Your task to perform on an android device: open app "Adobe Acrobat Reader" Image 0: 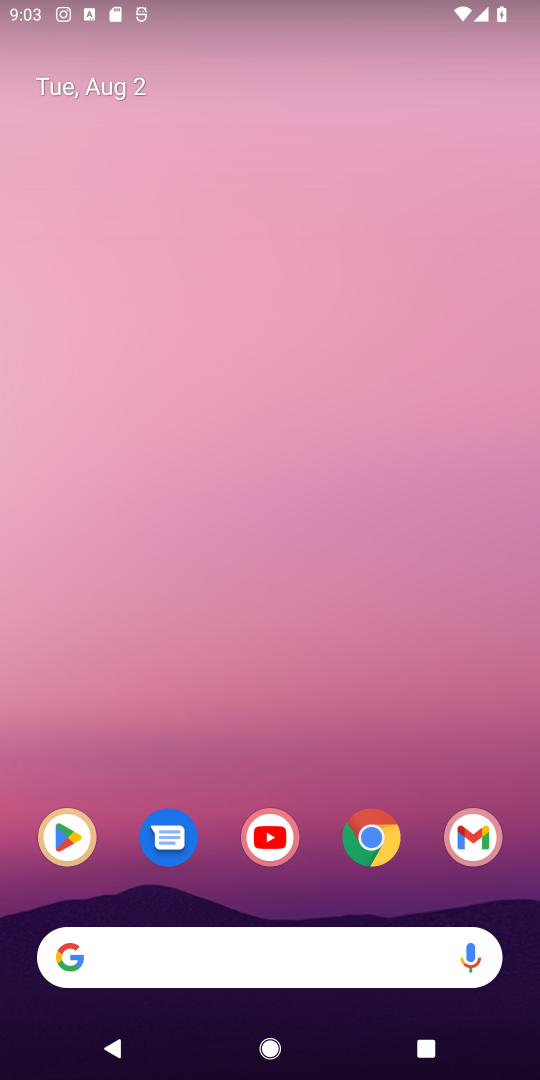
Step 0: click (58, 848)
Your task to perform on an android device: open app "Adobe Acrobat Reader" Image 1: 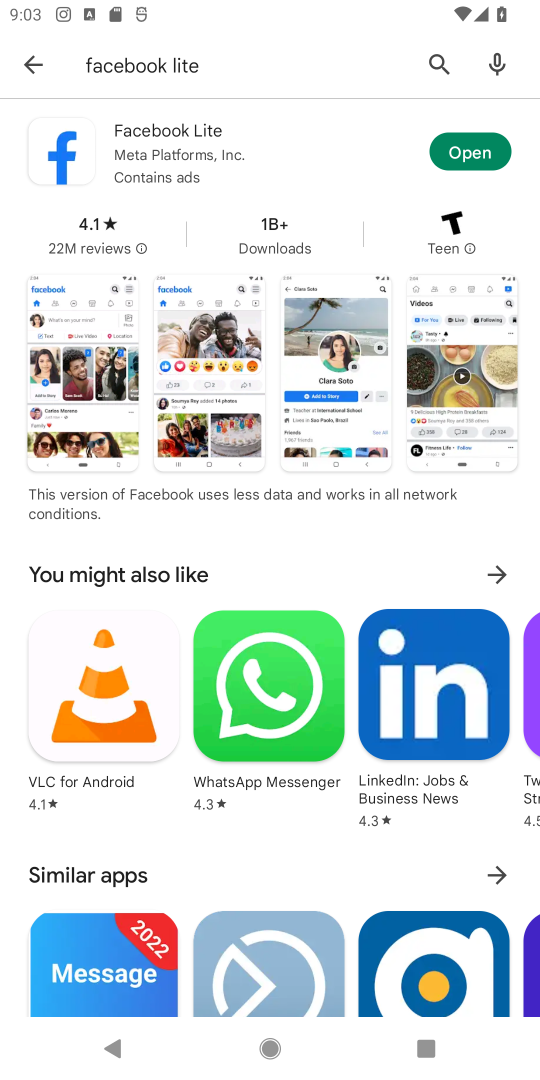
Step 1: click (430, 61)
Your task to perform on an android device: open app "Adobe Acrobat Reader" Image 2: 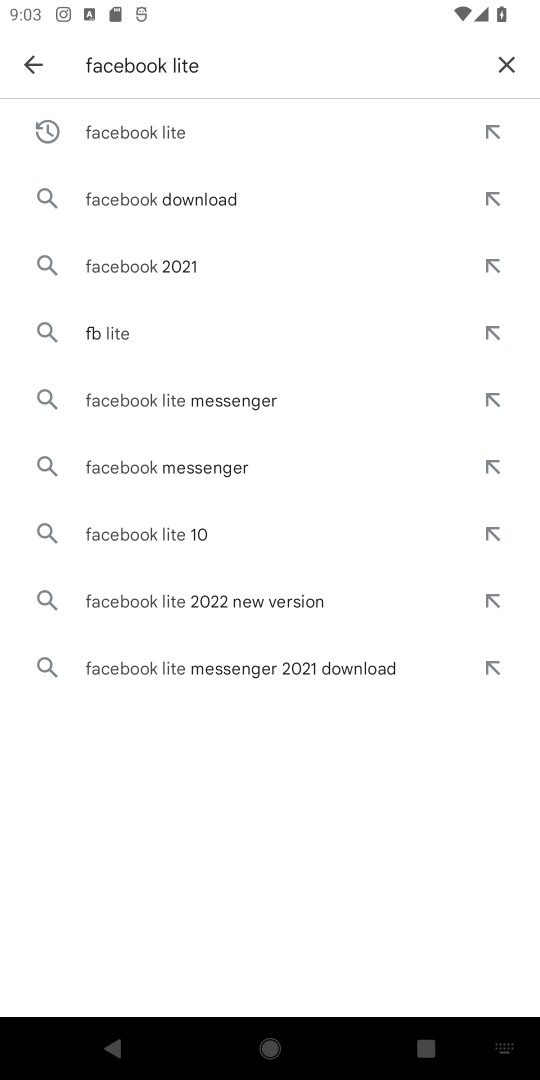
Step 2: click (511, 66)
Your task to perform on an android device: open app "Adobe Acrobat Reader" Image 3: 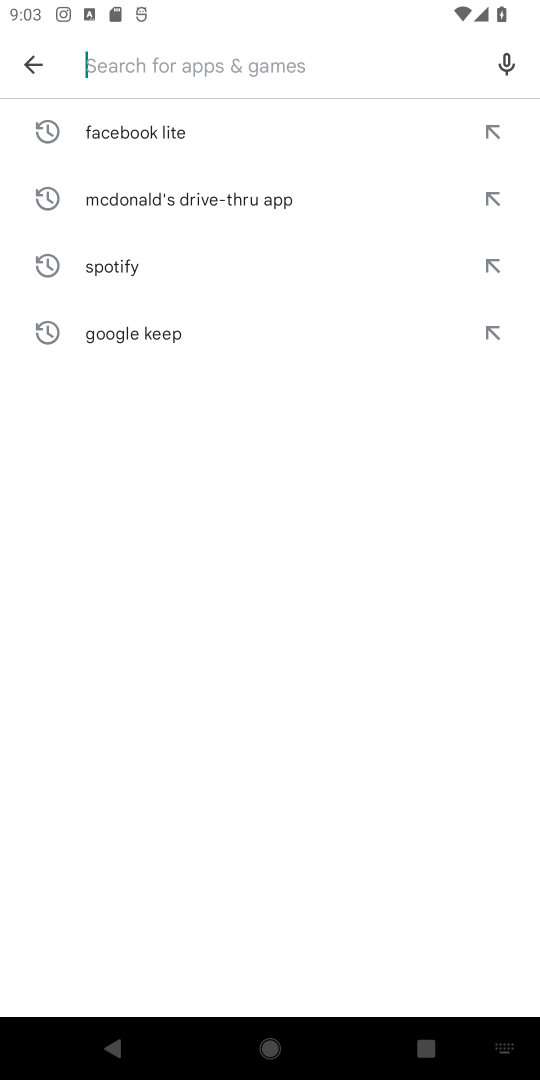
Step 3: click (305, 72)
Your task to perform on an android device: open app "Adobe Acrobat Reader" Image 4: 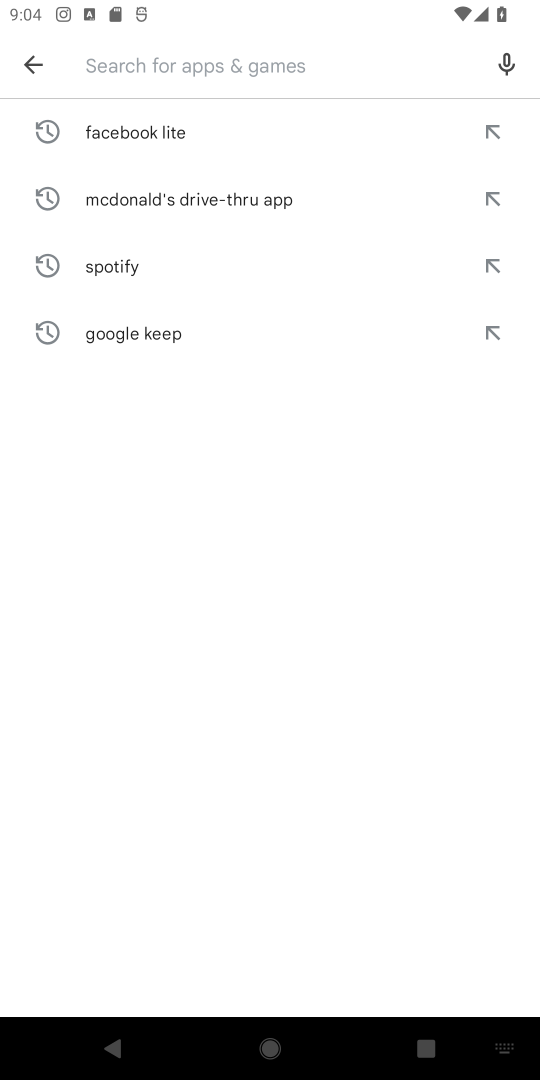
Step 4: type "Adobe Acrobat Reader"
Your task to perform on an android device: open app "Adobe Acrobat Reader" Image 5: 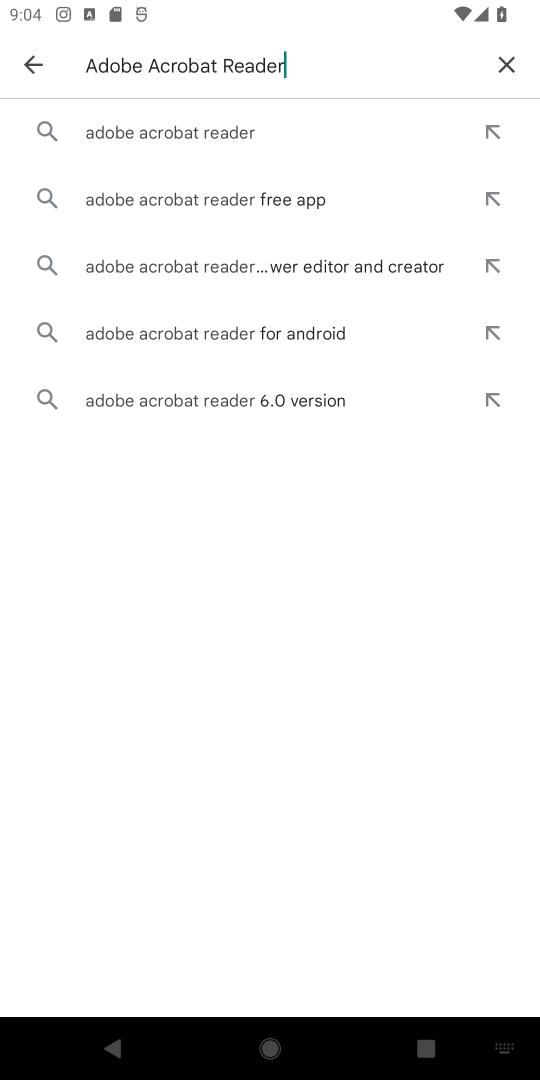
Step 5: click (153, 142)
Your task to perform on an android device: open app "Adobe Acrobat Reader" Image 6: 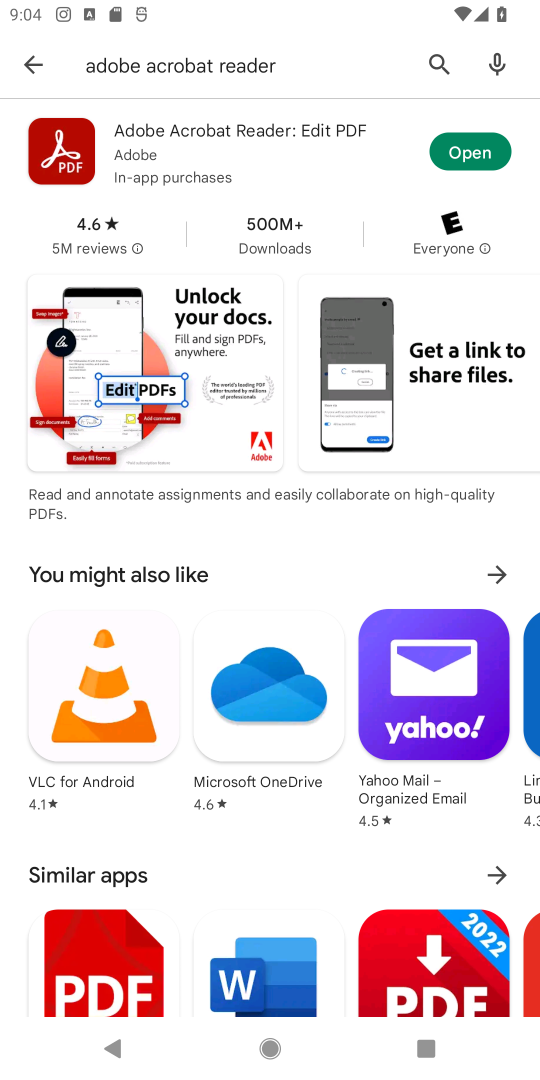
Step 6: click (454, 166)
Your task to perform on an android device: open app "Adobe Acrobat Reader" Image 7: 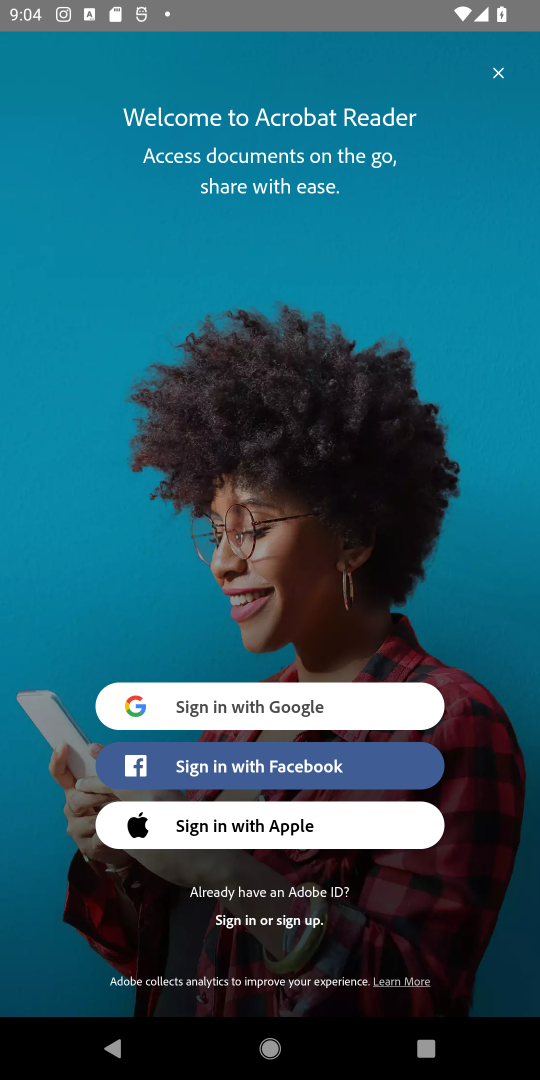
Step 7: task complete